Your task to perform on an android device: Go to location settings Image 0: 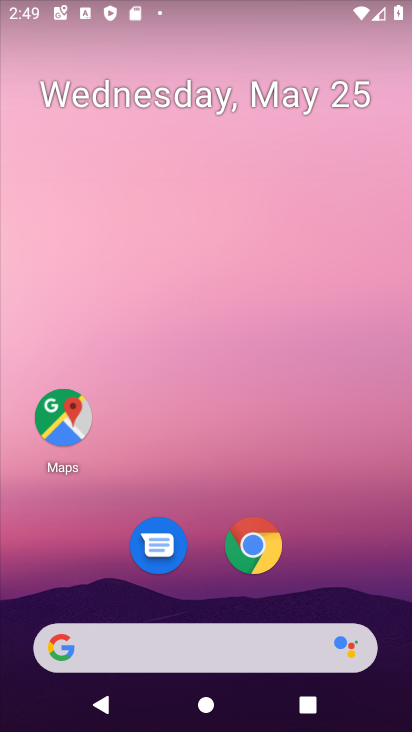
Step 0: drag from (354, 571) to (309, 36)
Your task to perform on an android device: Go to location settings Image 1: 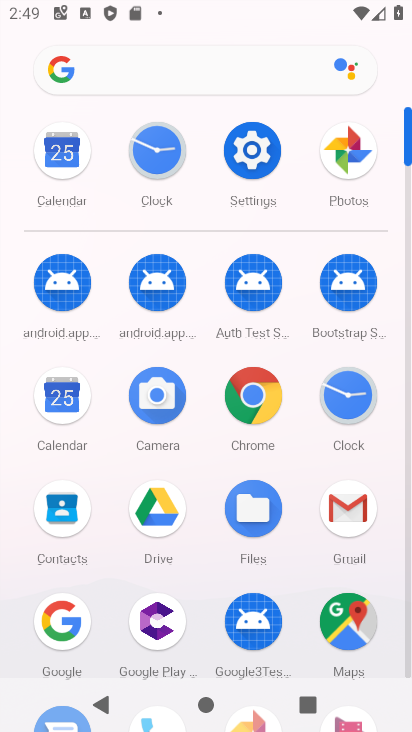
Step 1: click (243, 193)
Your task to perform on an android device: Go to location settings Image 2: 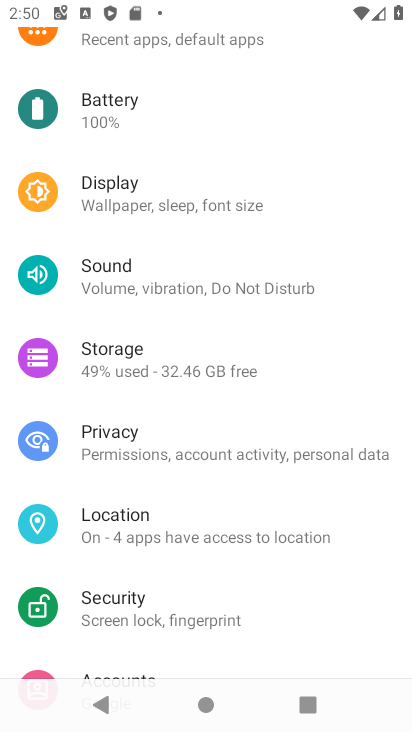
Step 2: click (227, 526)
Your task to perform on an android device: Go to location settings Image 3: 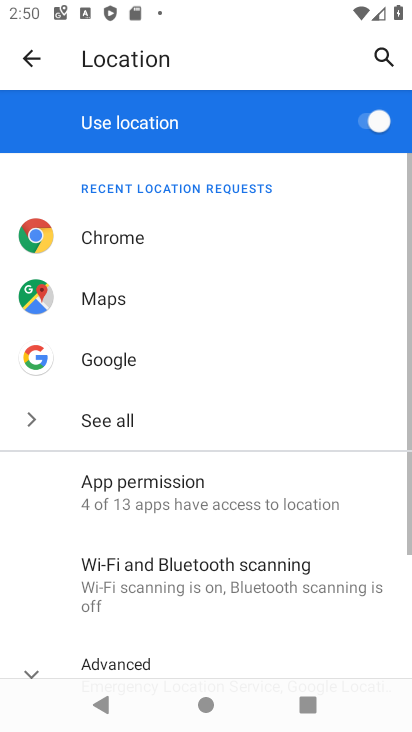
Step 3: click (332, 118)
Your task to perform on an android device: Go to location settings Image 4: 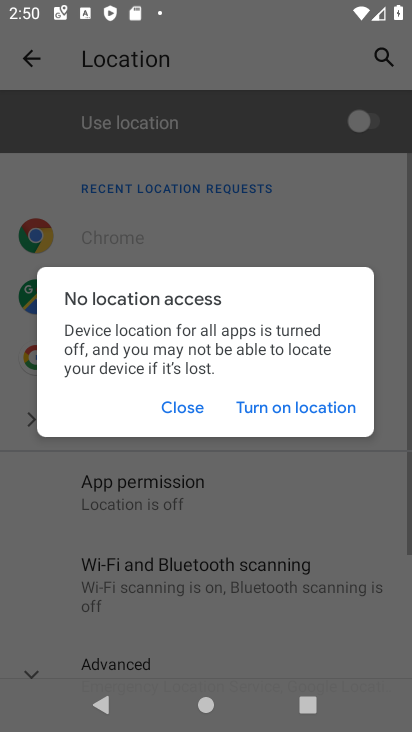
Step 4: task complete